Your task to perform on an android device: See recent photos Image 0: 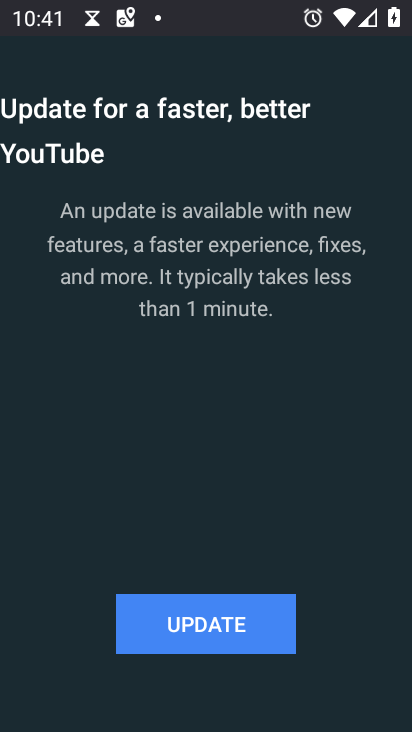
Step 0: press back button
Your task to perform on an android device: See recent photos Image 1: 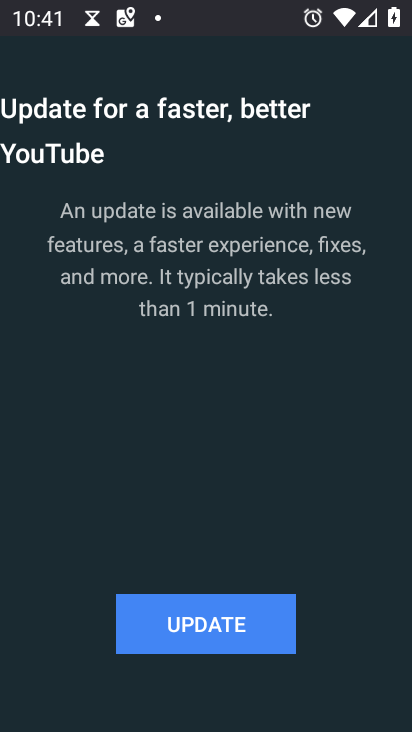
Step 1: press back button
Your task to perform on an android device: See recent photos Image 2: 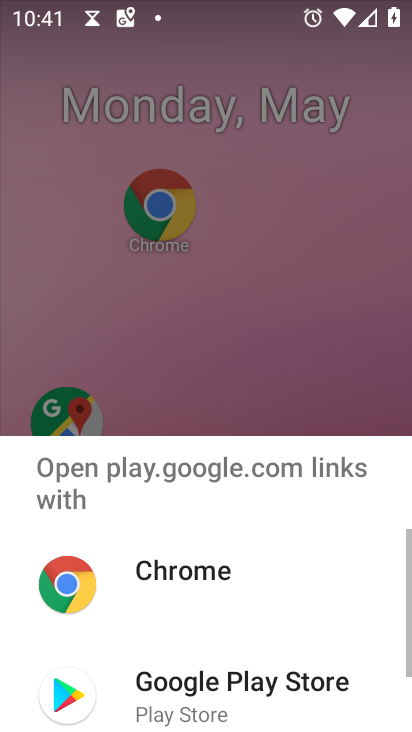
Step 2: press back button
Your task to perform on an android device: See recent photos Image 3: 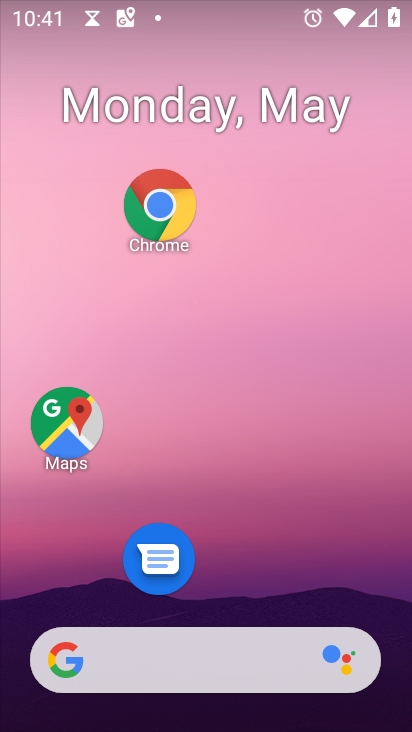
Step 3: press back button
Your task to perform on an android device: See recent photos Image 4: 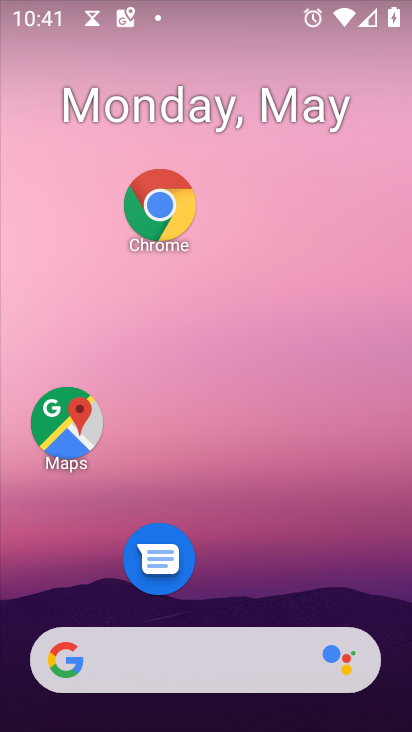
Step 4: drag from (219, 708) to (135, 33)
Your task to perform on an android device: See recent photos Image 5: 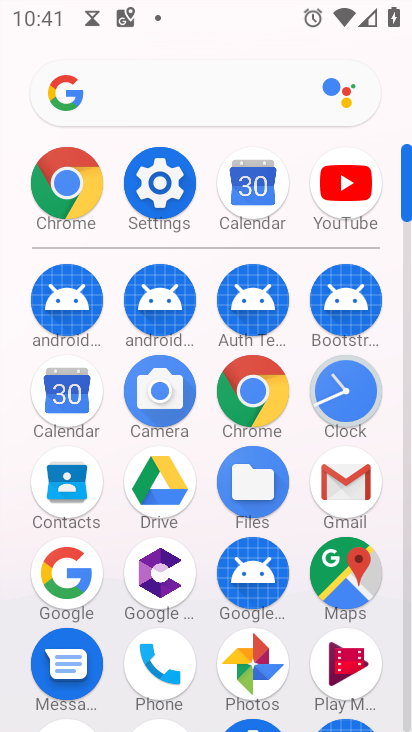
Step 5: click (253, 668)
Your task to perform on an android device: See recent photos Image 6: 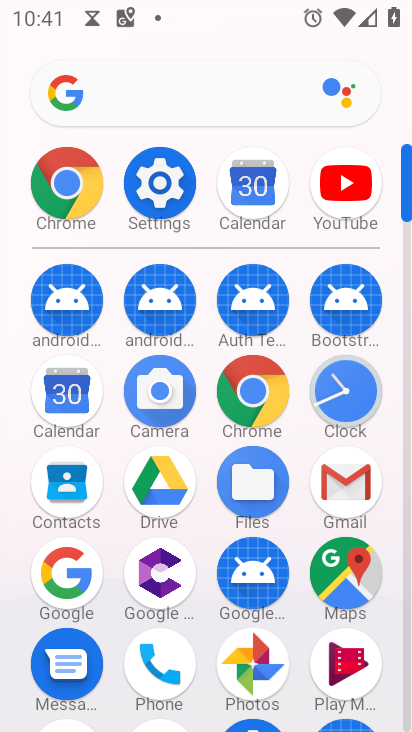
Step 6: click (255, 668)
Your task to perform on an android device: See recent photos Image 7: 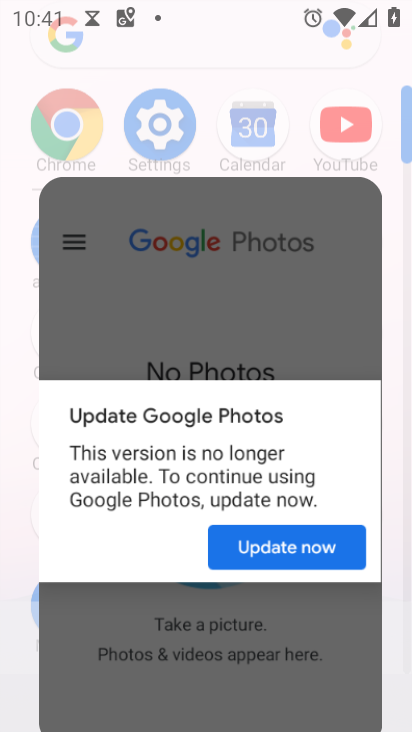
Step 7: click (258, 666)
Your task to perform on an android device: See recent photos Image 8: 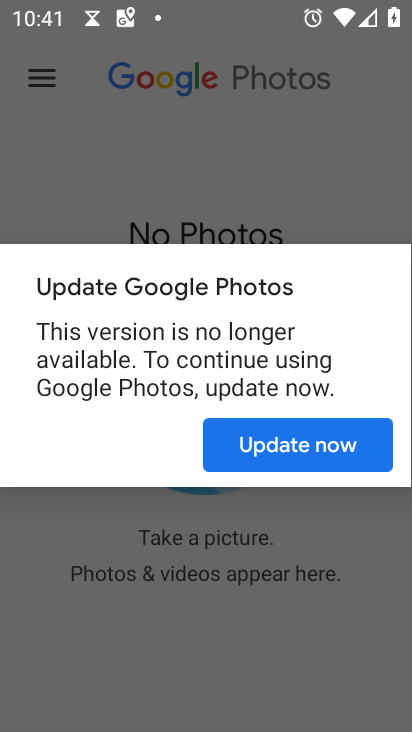
Step 8: click (291, 156)
Your task to perform on an android device: See recent photos Image 9: 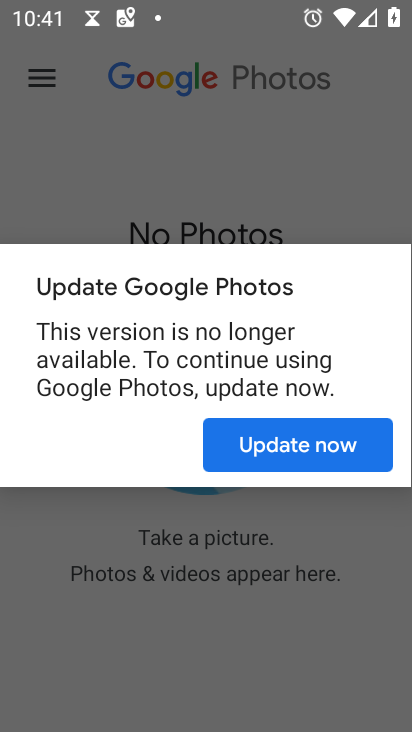
Step 9: click (289, 155)
Your task to perform on an android device: See recent photos Image 10: 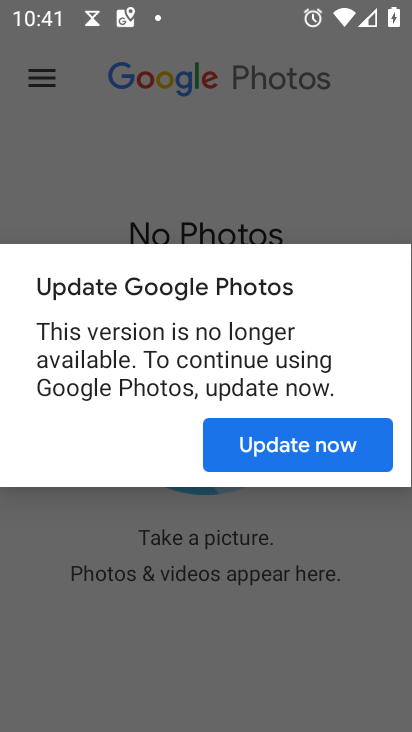
Step 10: click (289, 155)
Your task to perform on an android device: See recent photos Image 11: 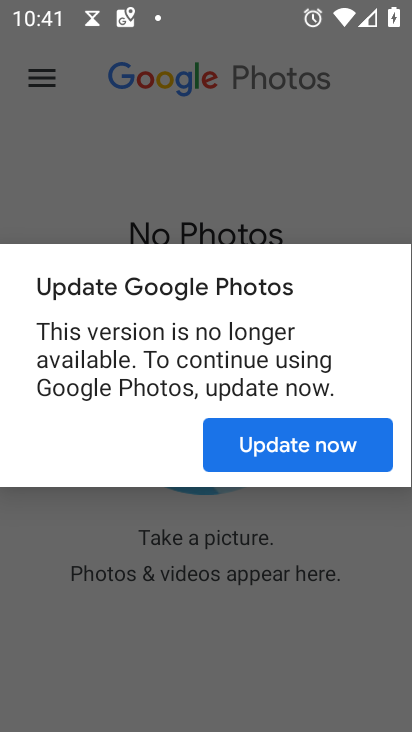
Step 11: click (291, 155)
Your task to perform on an android device: See recent photos Image 12: 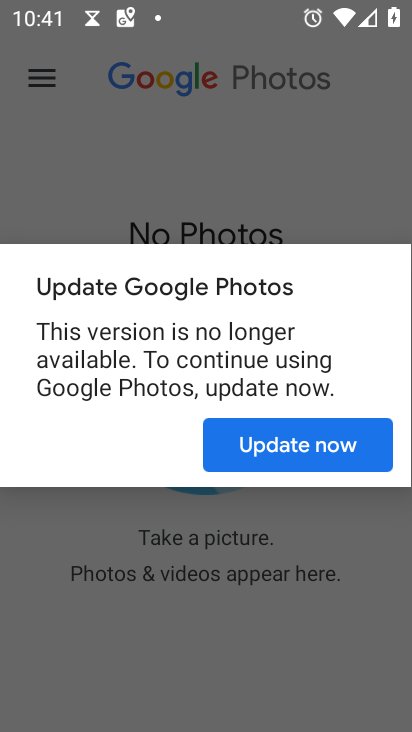
Step 12: click (297, 158)
Your task to perform on an android device: See recent photos Image 13: 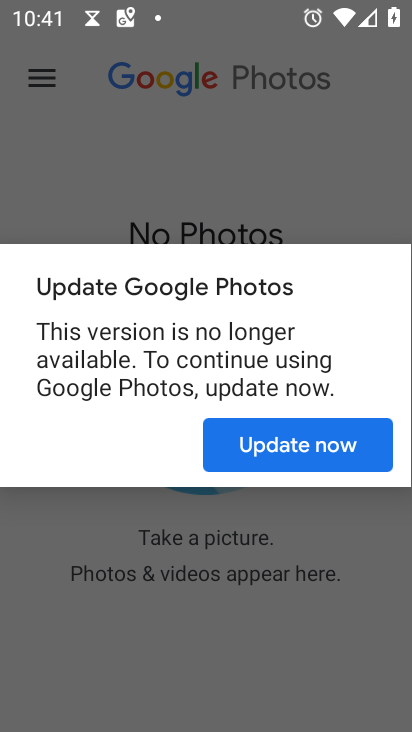
Step 13: click (297, 158)
Your task to perform on an android device: See recent photos Image 14: 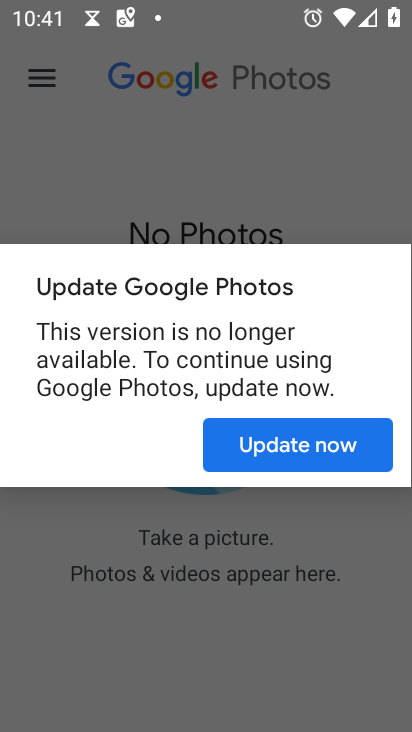
Step 14: click (297, 158)
Your task to perform on an android device: See recent photos Image 15: 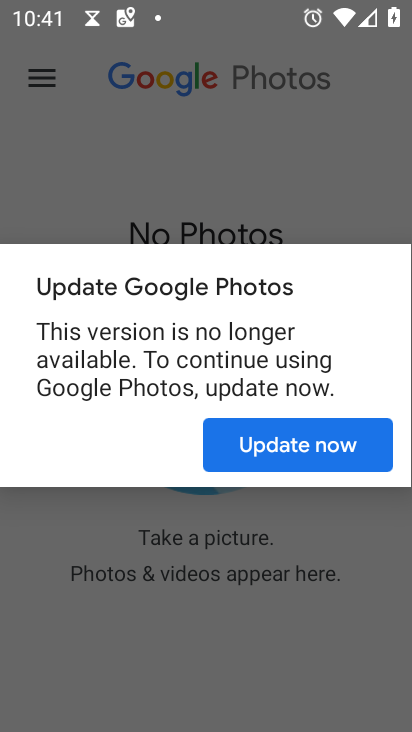
Step 15: click (297, 158)
Your task to perform on an android device: See recent photos Image 16: 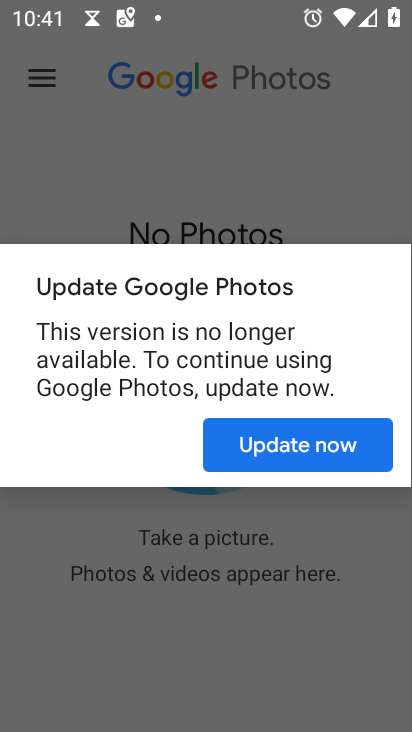
Step 16: click (300, 166)
Your task to perform on an android device: See recent photos Image 17: 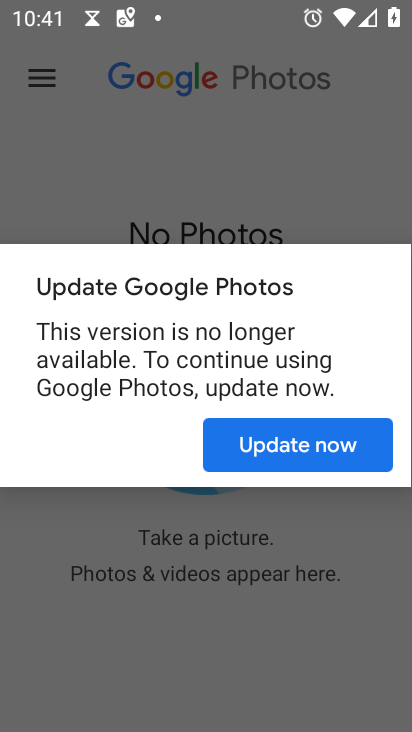
Step 17: click (301, 165)
Your task to perform on an android device: See recent photos Image 18: 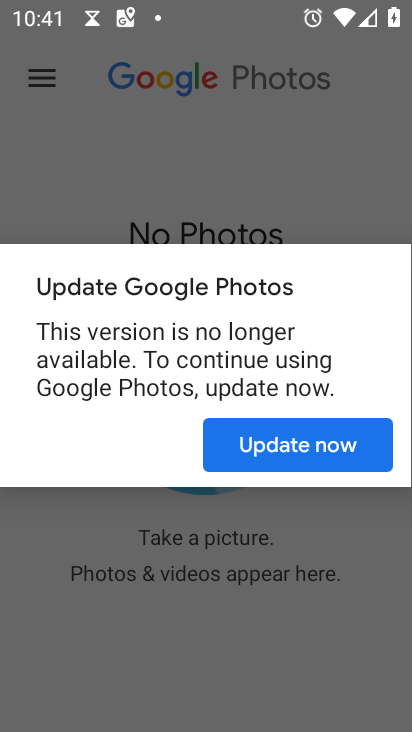
Step 18: click (308, 155)
Your task to perform on an android device: See recent photos Image 19: 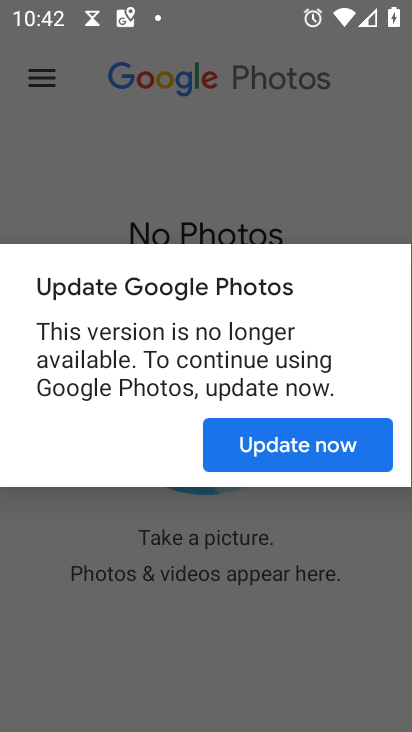
Step 19: click (294, 200)
Your task to perform on an android device: See recent photos Image 20: 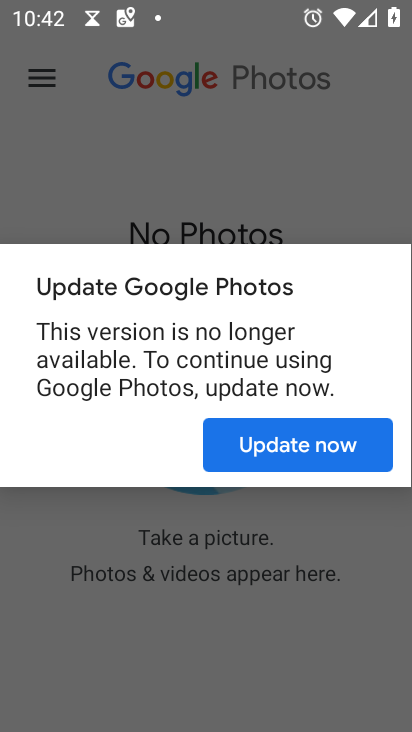
Step 20: click (307, 188)
Your task to perform on an android device: See recent photos Image 21: 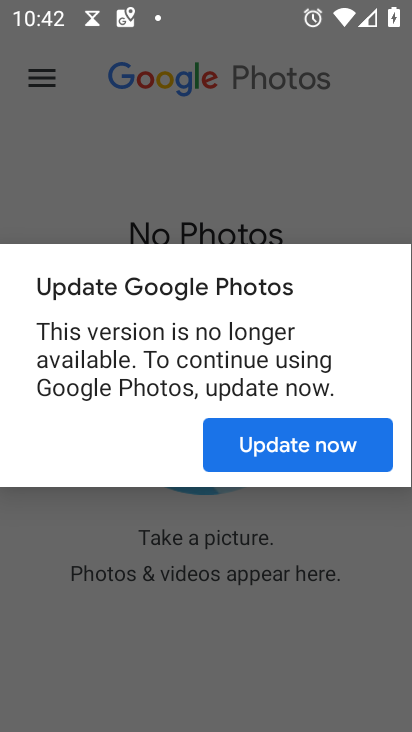
Step 21: click (307, 188)
Your task to perform on an android device: See recent photos Image 22: 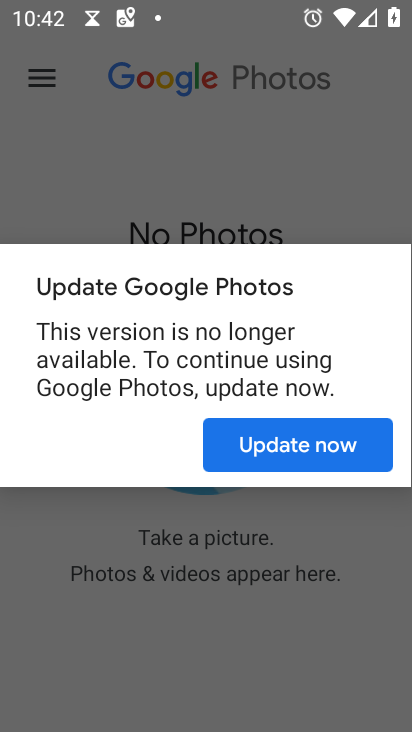
Step 22: click (309, 186)
Your task to perform on an android device: See recent photos Image 23: 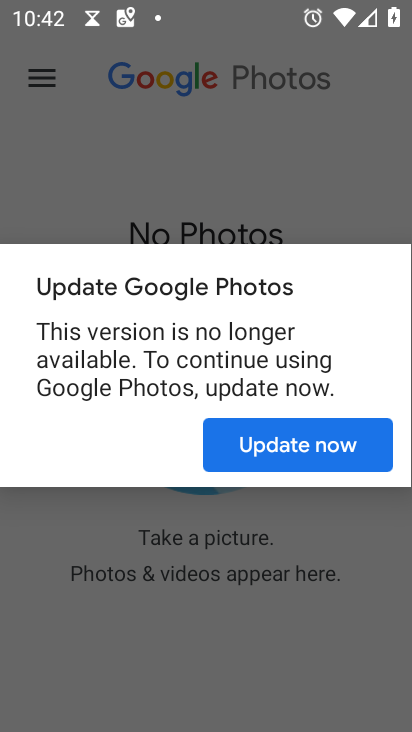
Step 23: click (312, 184)
Your task to perform on an android device: See recent photos Image 24: 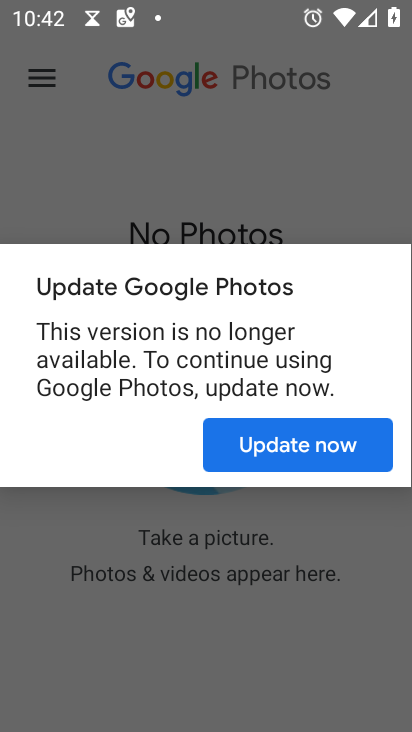
Step 24: press back button
Your task to perform on an android device: See recent photos Image 25: 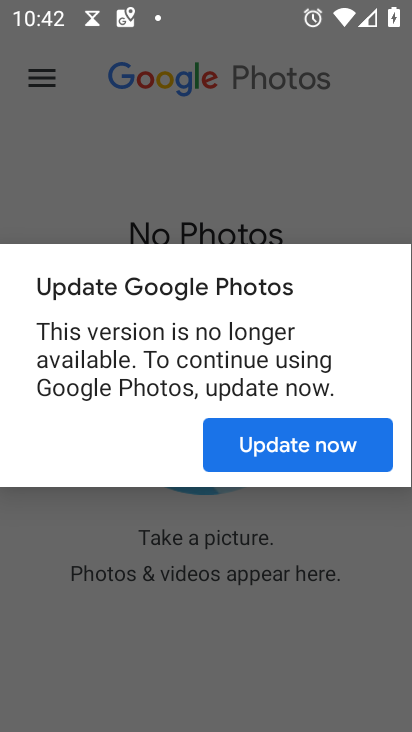
Step 25: press back button
Your task to perform on an android device: See recent photos Image 26: 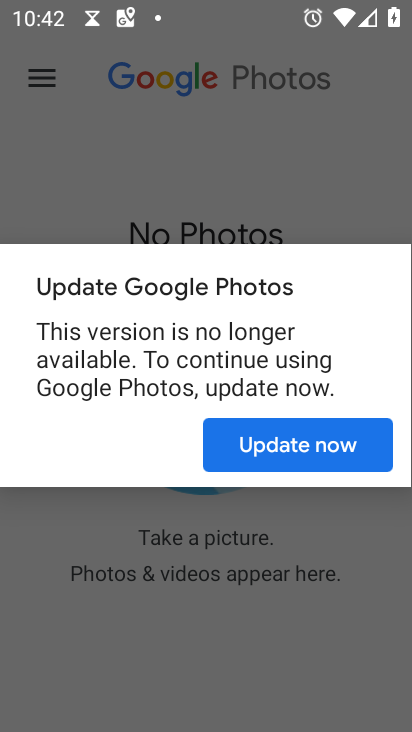
Step 26: press back button
Your task to perform on an android device: See recent photos Image 27: 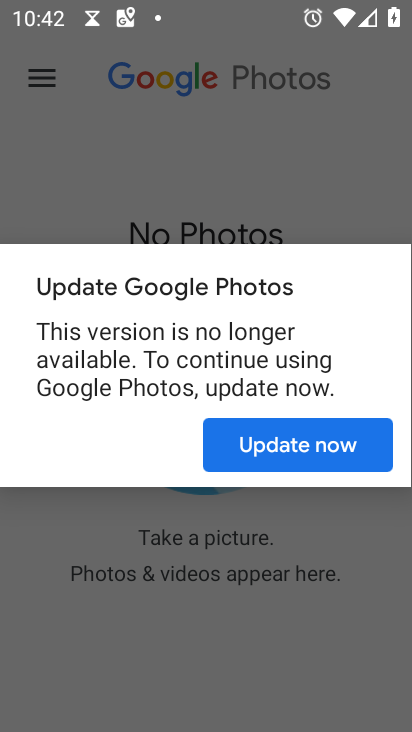
Step 27: click (270, 143)
Your task to perform on an android device: See recent photos Image 28: 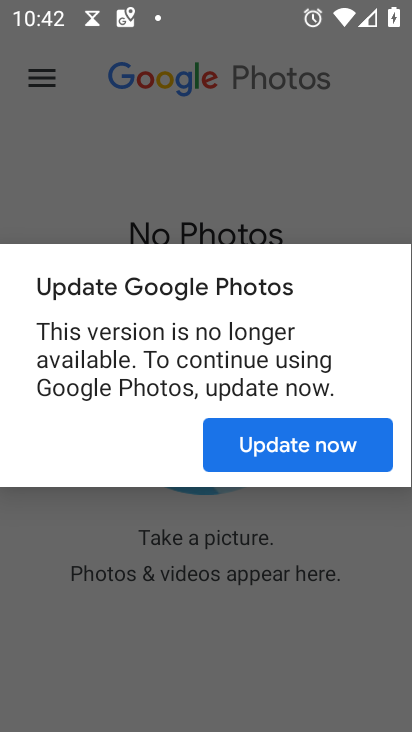
Step 28: click (241, 173)
Your task to perform on an android device: See recent photos Image 29: 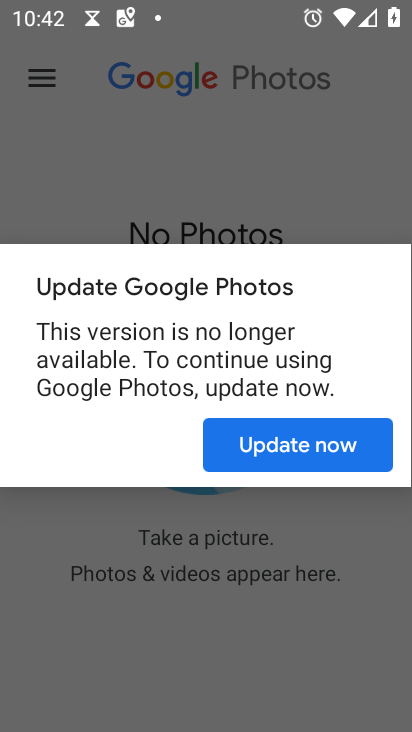
Step 29: click (241, 173)
Your task to perform on an android device: See recent photos Image 30: 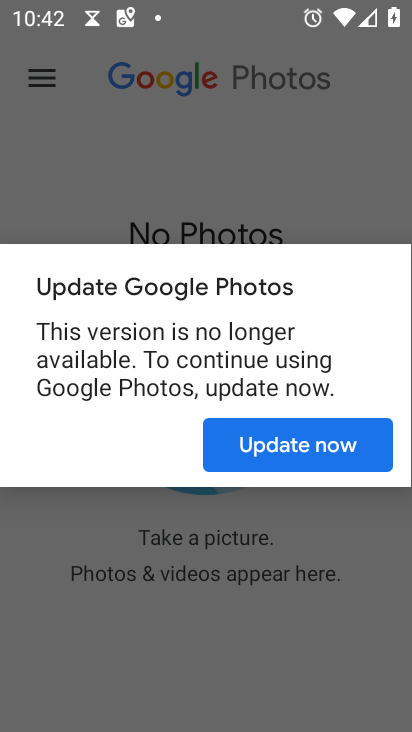
Step 30: click (184, 169)
Your task to perform on an android device: See recent photos Image 31: 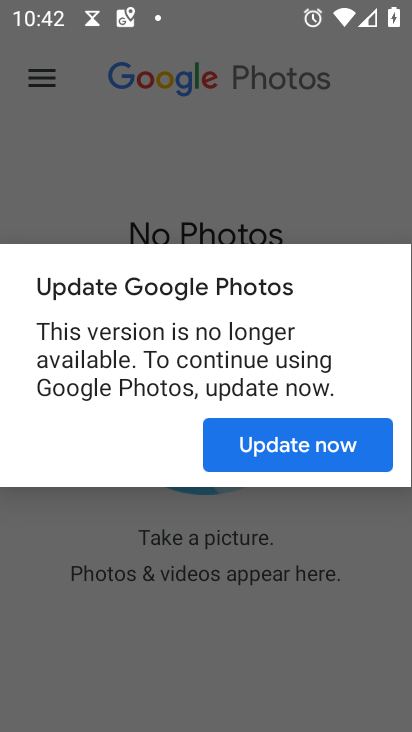
Step 31: click (185, 167)
Your task to perform on an android device: See recent photos Image 32: 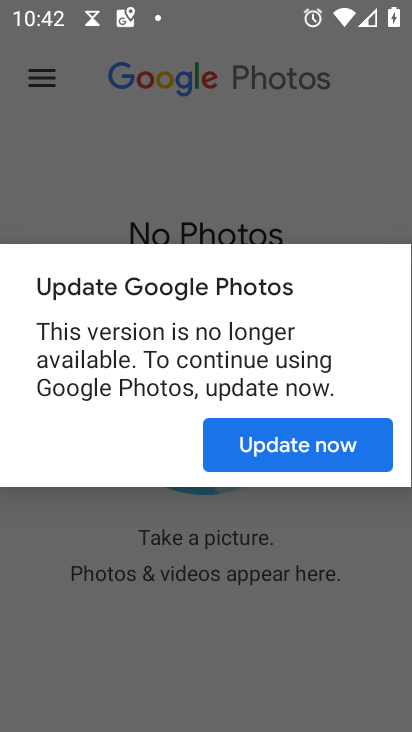
Step 32: click (186, 166)
Your task to perform on an android device: See recent photos Image 33: 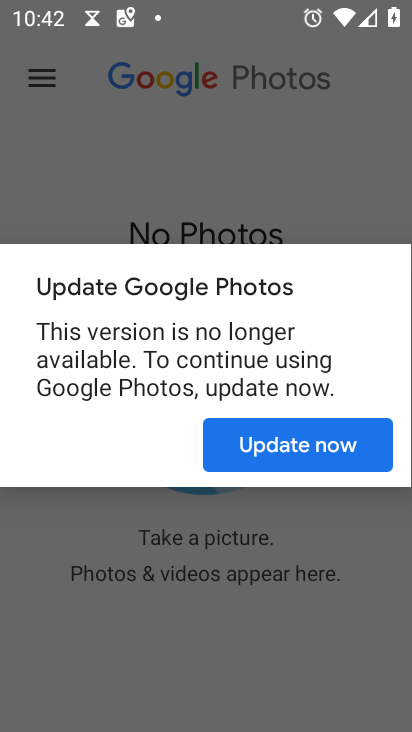
Step 33: click (186, 166)
Your task to perform on an android device: See recent photos Image 34: 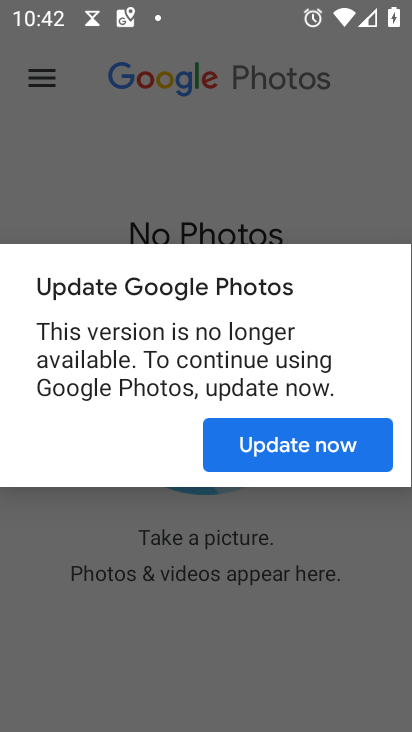
Step 34: press home button
Your task to perform on an android device: See recent photos Image 35: 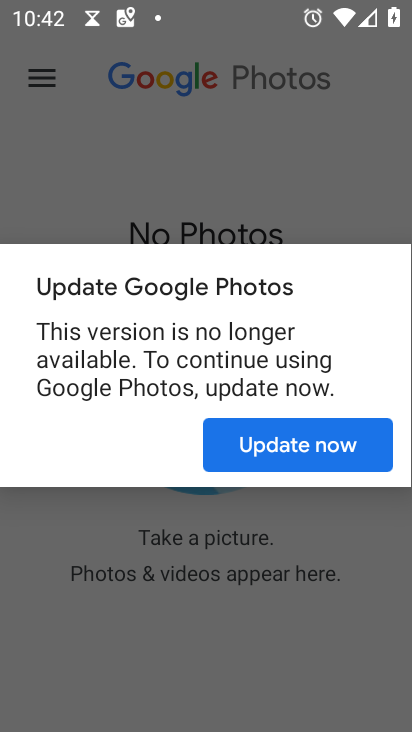
Step 35: press home button
Your task to perform on an android device: See recent photos Image 36: 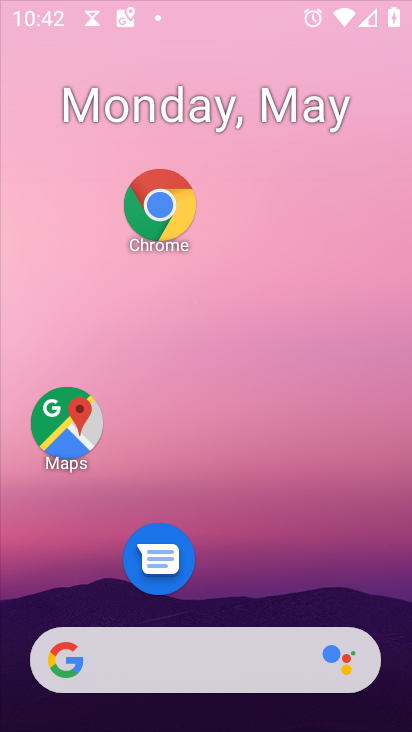
Step 36: press home button
Your task to perform on an android device: See recent photos Image 37: 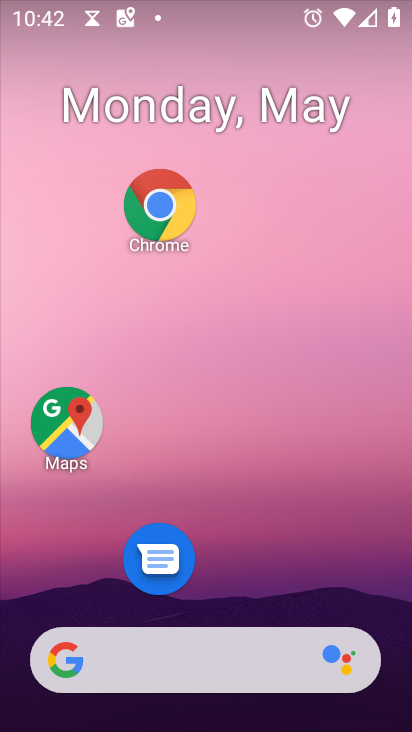
Step 37: press home button
Your task to perform on an android device: See recent photos Image 38: 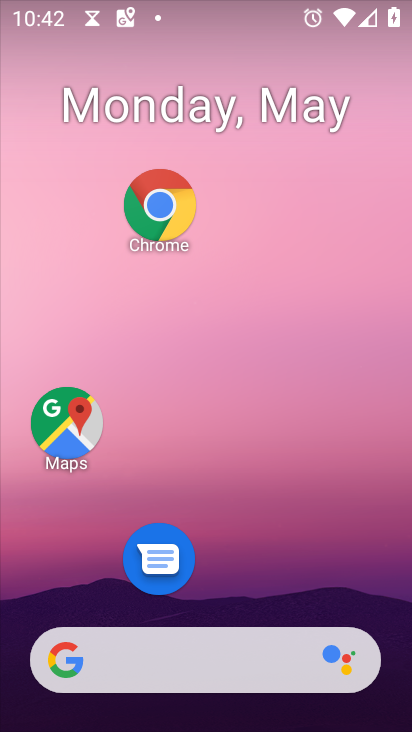
Step 38: click (147, 91)
Your task to perform on an android device: See recent photos Image 39: 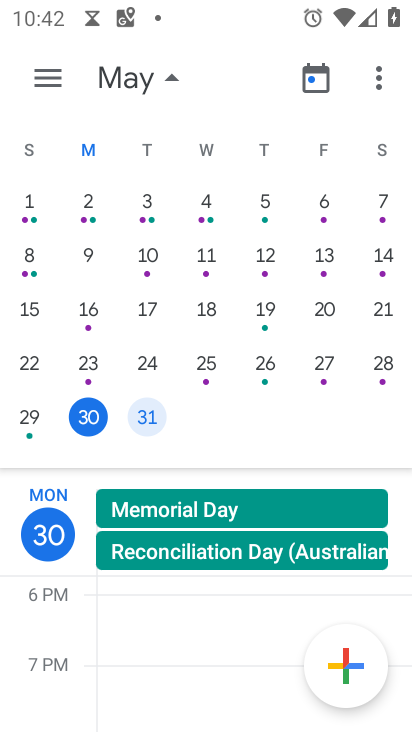
Step 39: press home button
Your task to perform on an android device: See recent photos Image 40: 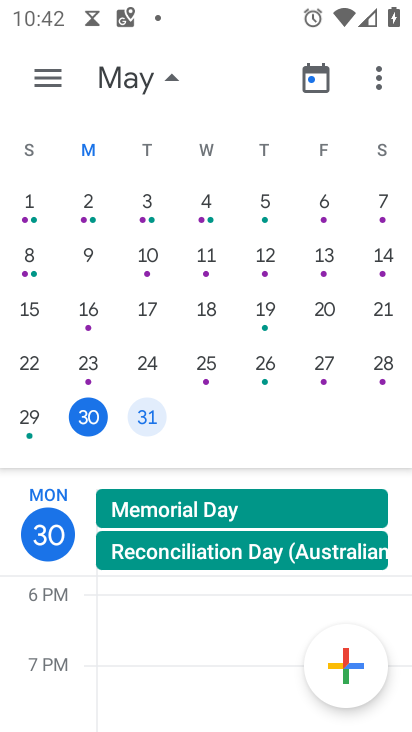
Step 40: press home button
Your task to perform on an android device: See recent photos Image 41: 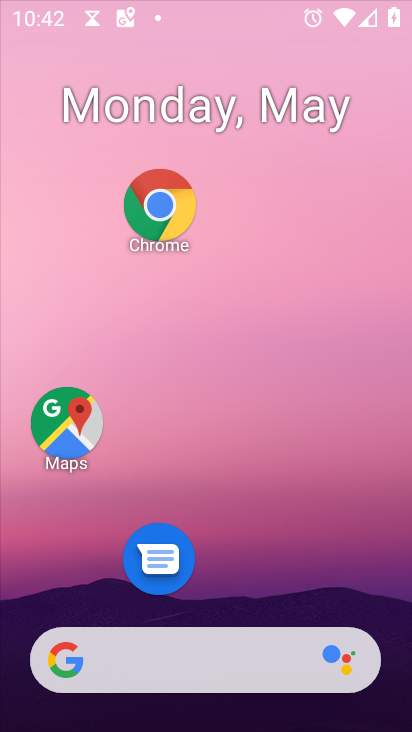
Step 41: press home button
Your task to perform on an android device: See recent photos Image 42: 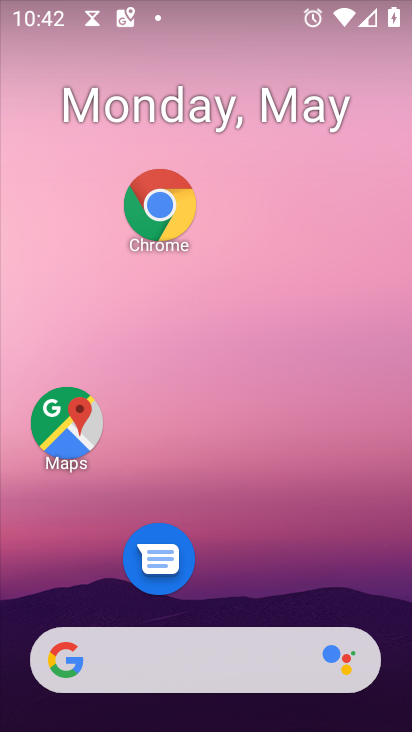
Step 42: drag from (220, 668) to (127, 17)
Your task to perform on an android device: See recent photos Image 43: 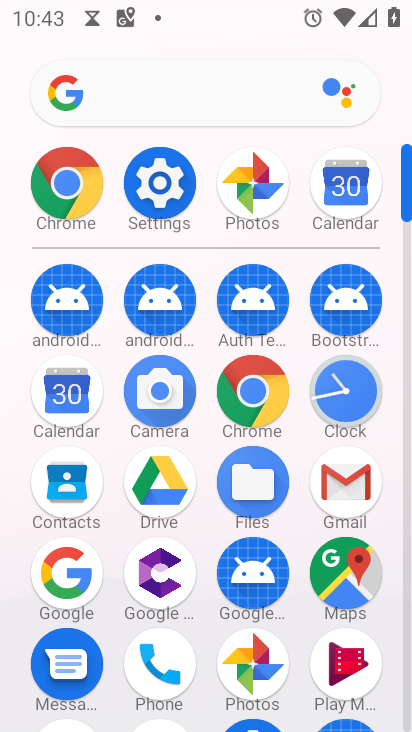
Step 43: click (246, 656)
Your task to perform on an android device: See recent photos Image 44: 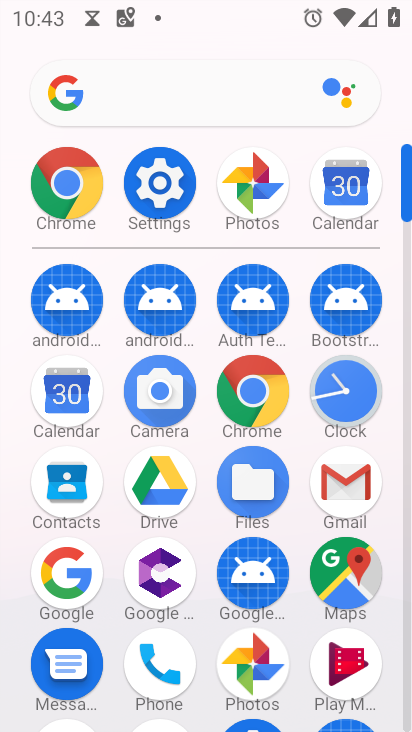
Step 44: click (246, 656)
Your task to perform on an android device: See recent photos Image 45: 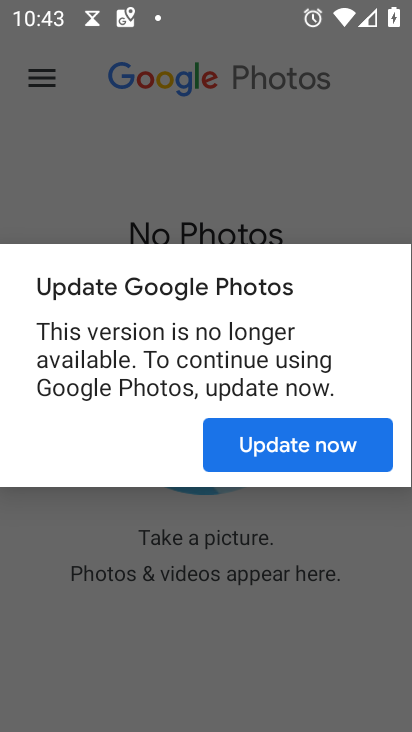
Step 45: click (121, 142)
Your task to perform on an android device: See recent photos Image 46: 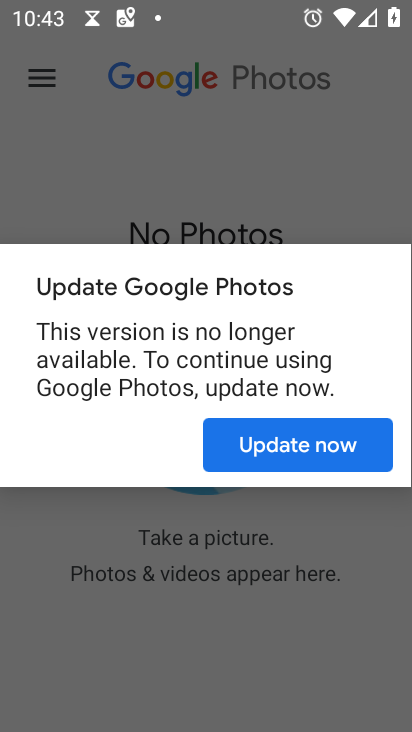
Step 46: click (121, 142)
Your task to perform on an android device: See recent photos Image 47: 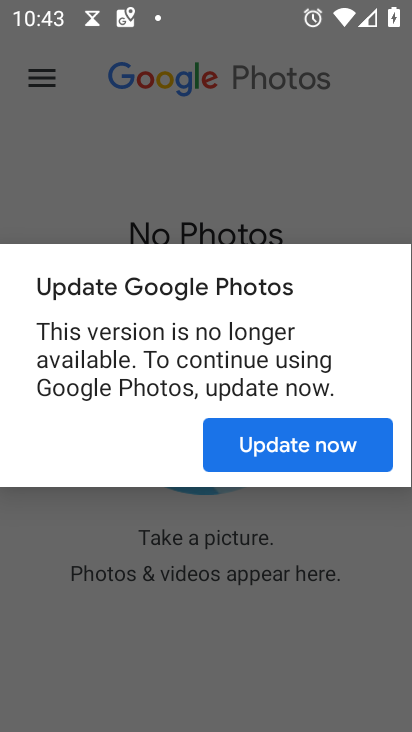
Step 47: click (121, 148)
Your task to perform on an android device: See recent photos Image 48: 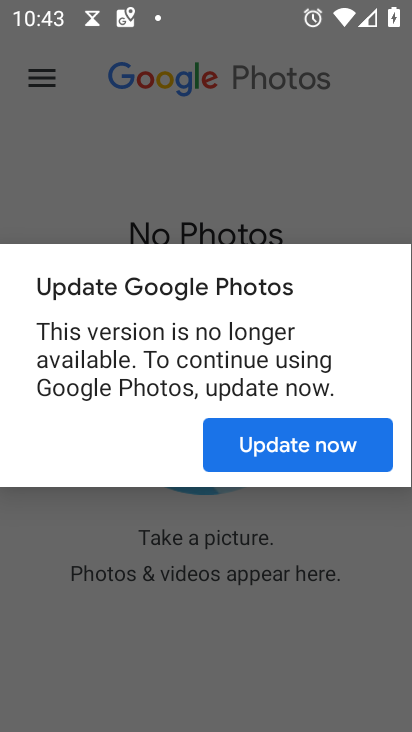
Step 48: click (121, 148)
Your task to perform on an android device: See recent photos Image 49: 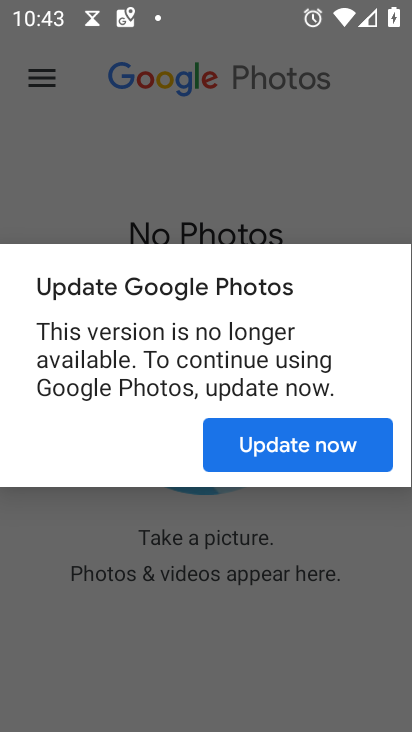
Step 49: click (123, 147)
Your task to perform on an android device: See recent photos Image 50: 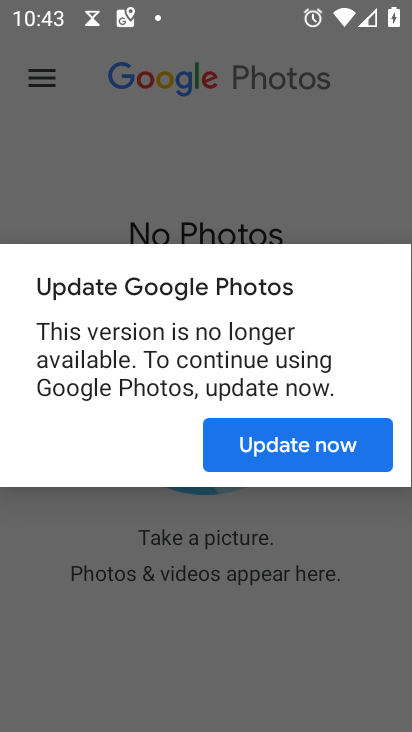
Step 50: click (123, 147)
Your task to perform on an android device: See recent photos Image 51: 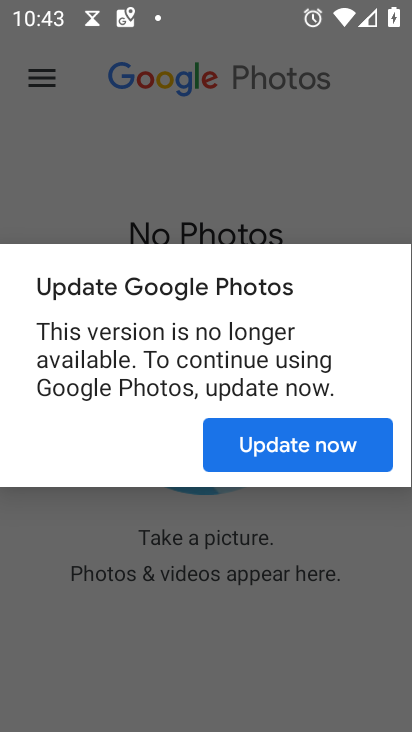
Step 51: click (124, 146)
Your task to perform on an android device: See recent photos Image 52: 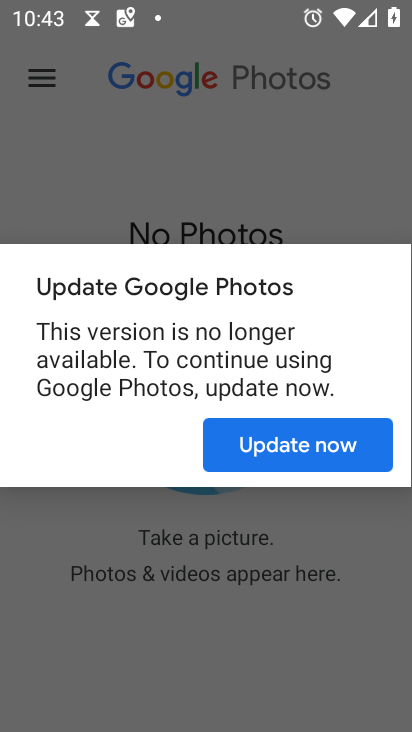
Step 52: click (124, 146)
Your task to perform on an android device: See recent photos Image 53: 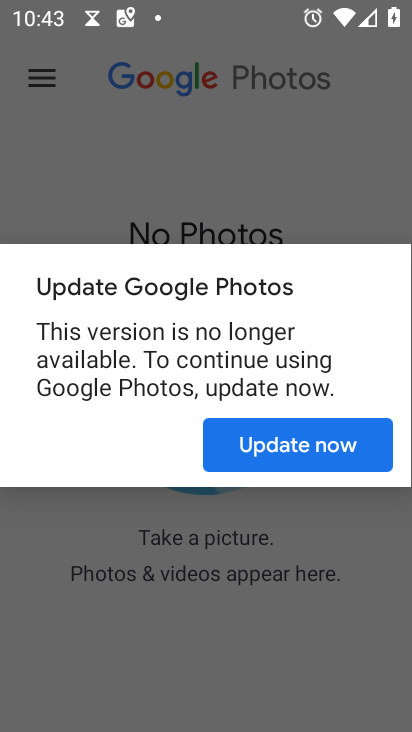
Step 53: click (124, 146)
Your task to perform on an android device: See recent photos Image 54: 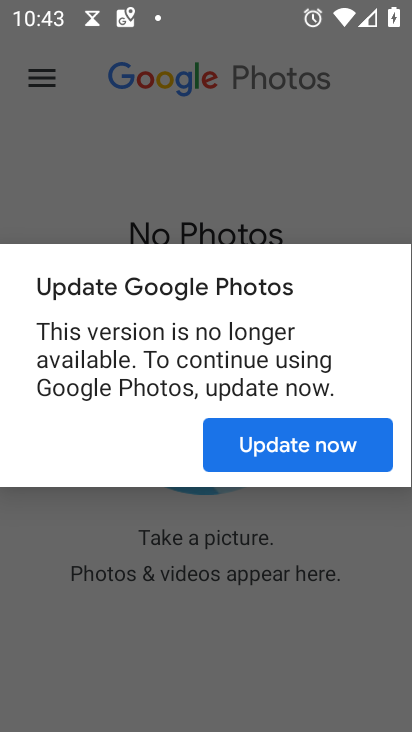
Step 54: click (140, 153)
Your task to perform on an android device: See recent photos Image 55: 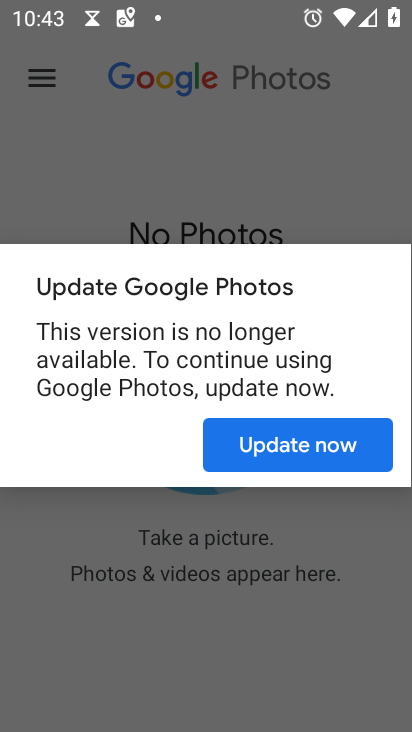
Step 55: click (153, 156)
Your task to perform on an android device: See recent photos Image 56: 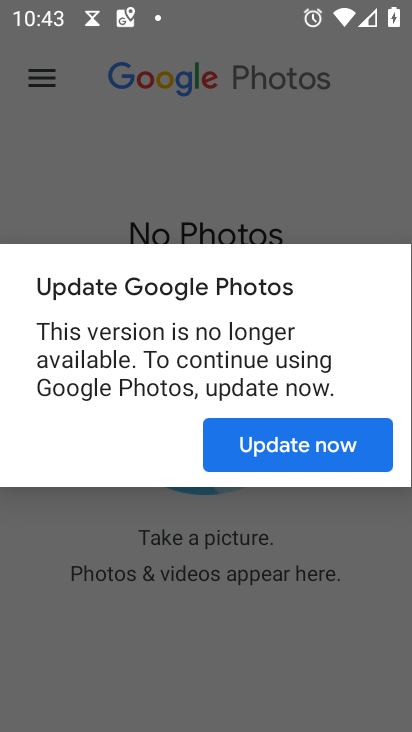
Step 56: click (158, 154)
Your task to perform on an android device: See recent photos Image 57: 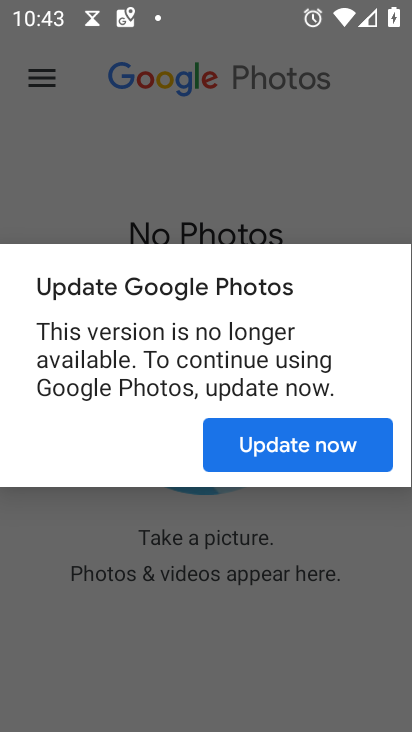
Step 57: click (160, 155)
Your task to perform on an android device: See recent photos Image 58: 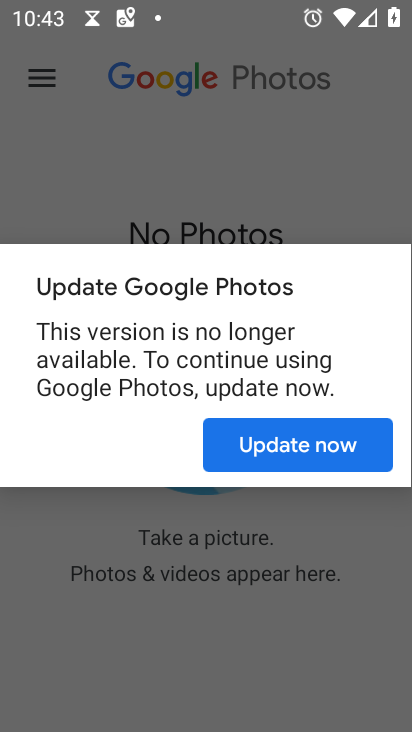
Step 58: click (160, 155)
Your task to perform on an android device: See recent photos Image 59: 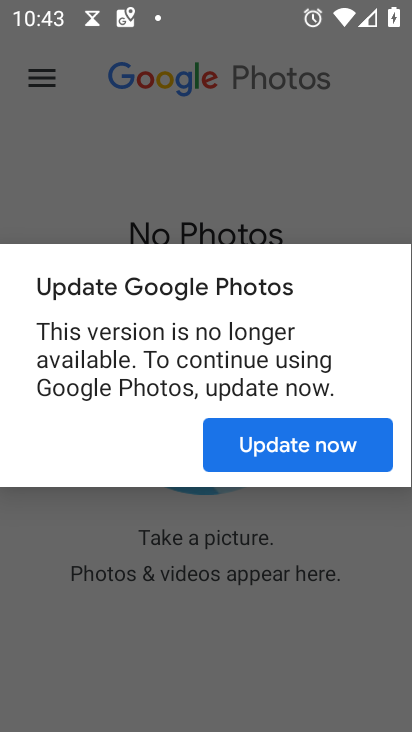
Step 59: click (160, 155)
Your task to perform on an android device: See recent photos Image 60: 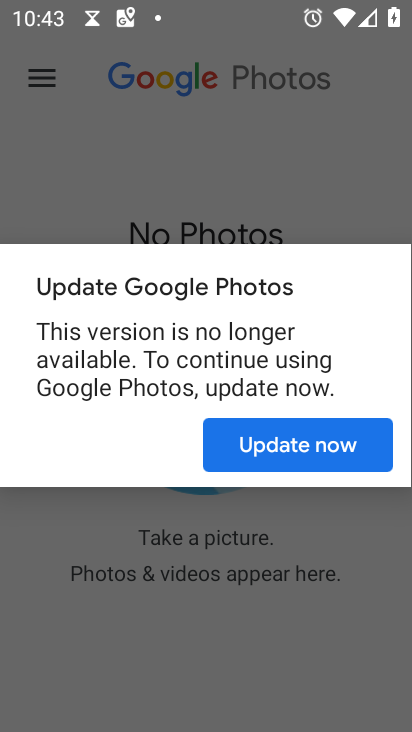
Step 60: click (77, 163)
Your task to perform on an android device: See recent photos Image 61: 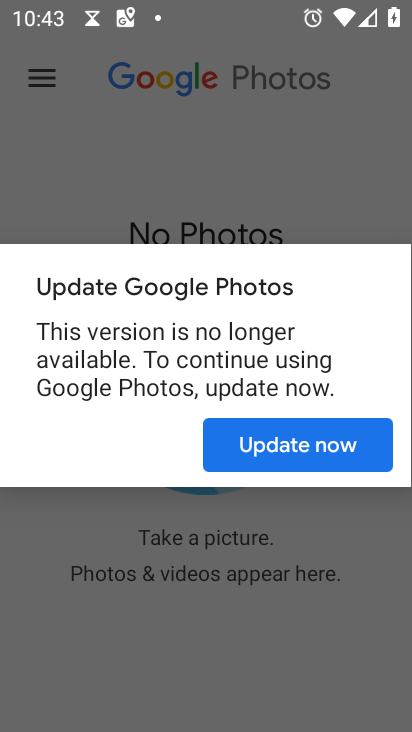
Step 61: click (76, 161)
Your task to perform on an android device: See recent photos Image 62: 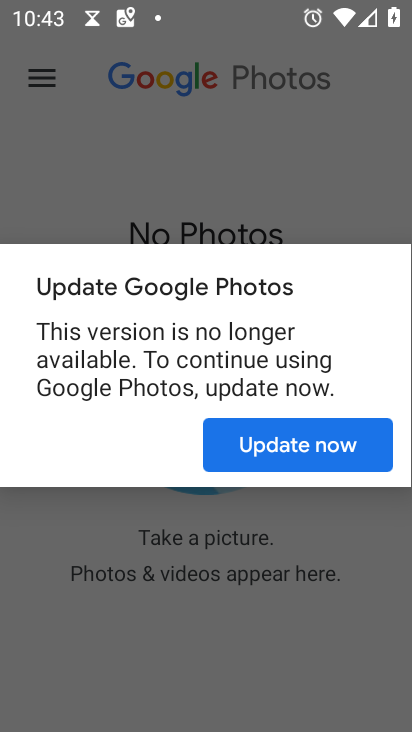
Step 62: click (302, 445)
Your task to perform on an android device: See recent photos Image 63: 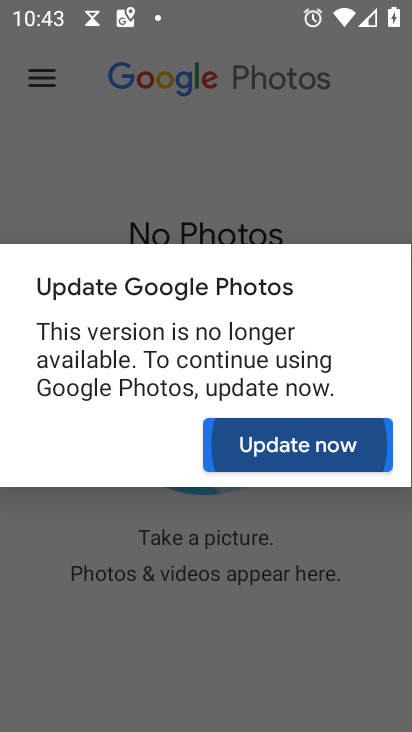
Step 63: click (303, 443)
Your task to perform on an android device: See recent photos Image 64: 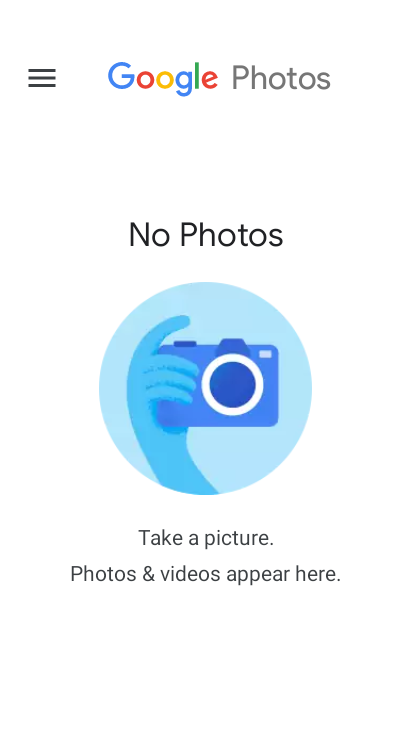
Step 64: click (310, 443)
Your task to perform on an android device: See recent photos Image 65: 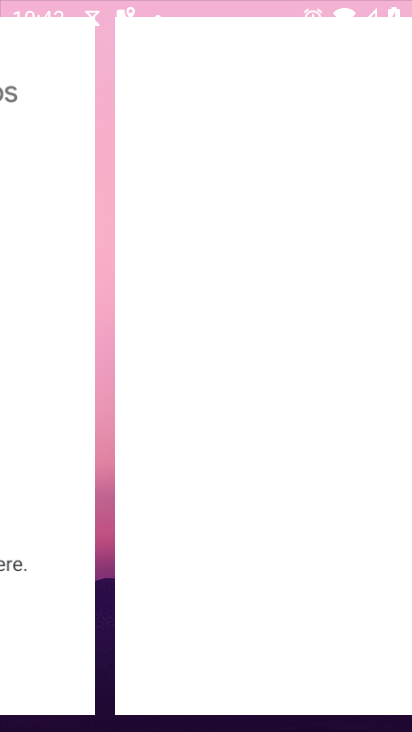
Step 65: click (310, 443)
Your task to perform on an android device: See recent photos Image 66: 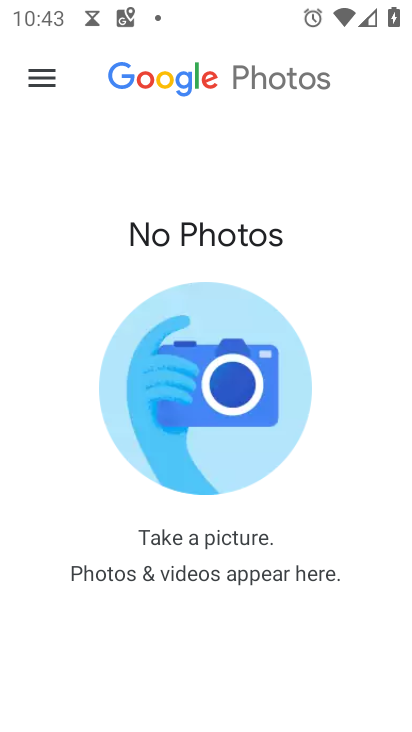
Step 66: press home button
Your task to perform on an android device: See recent photos Image 67: 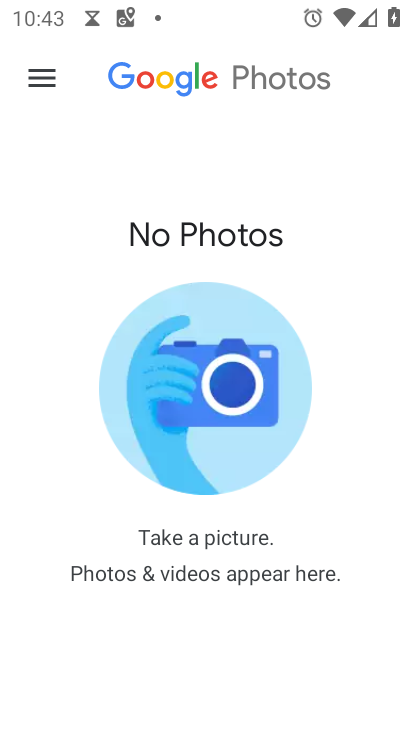
Step 67: press home button
Your task to perform on an android device: See recent photos Image 68: 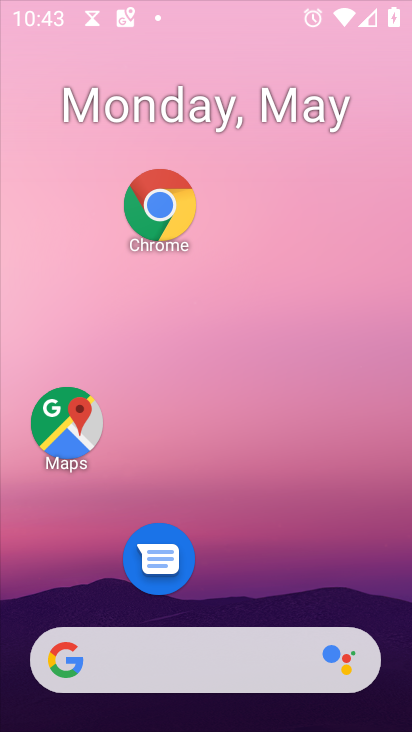
Step 68: press home button
Your task to perform on an android device: See recent photos Image 69: 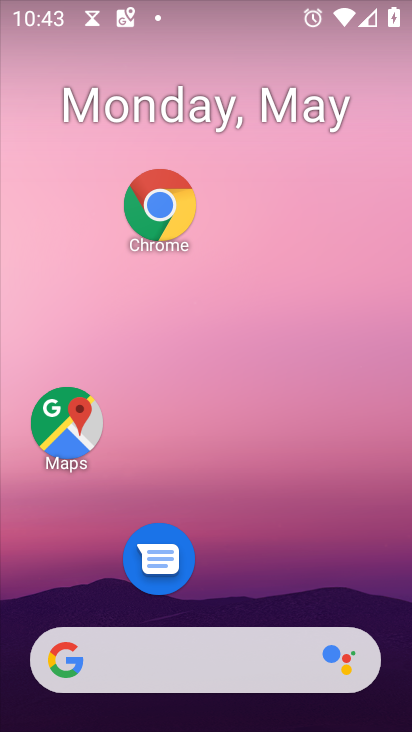
Step 69: drag from (238, 699) to (121, 158)
Your task to perform on an android device: See recent photos Image 70: 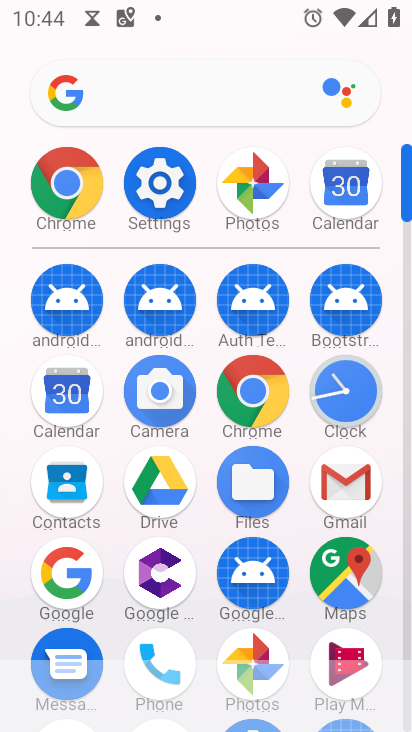
Step 70: click (256, 662)
Your task to perform on an android device: See recent photos Image 71: 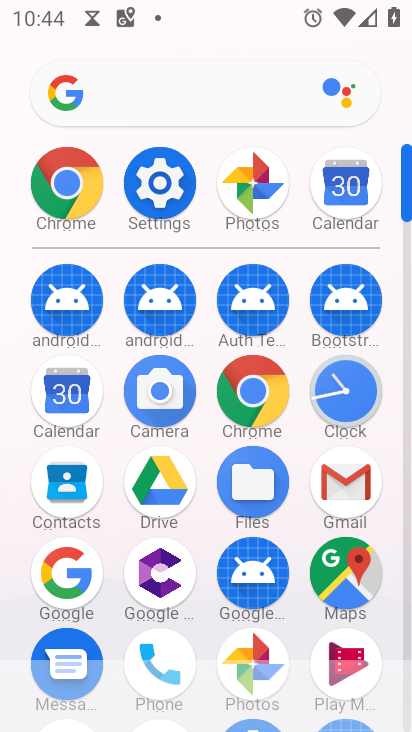
Step 71: click (255, 661)
Your task to perform on an android device: See recent photos Image 72: 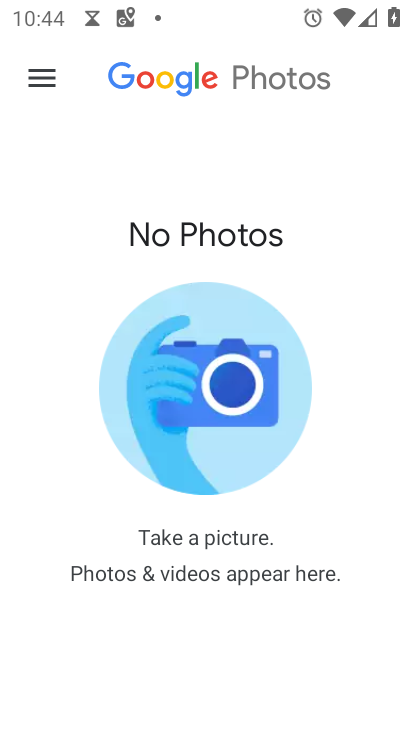
Step 72: task complete